Your task to perform on an android device: find photos in the google photos app Image 0: 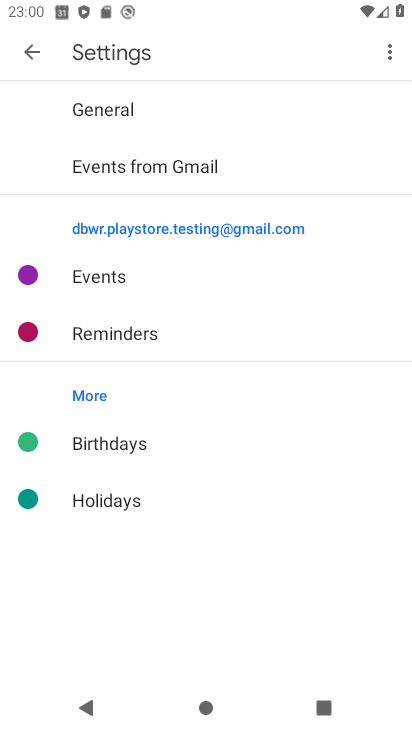
Step 0: press back button
Your task to perform on an android device: find photos in the google photos app Image 1: 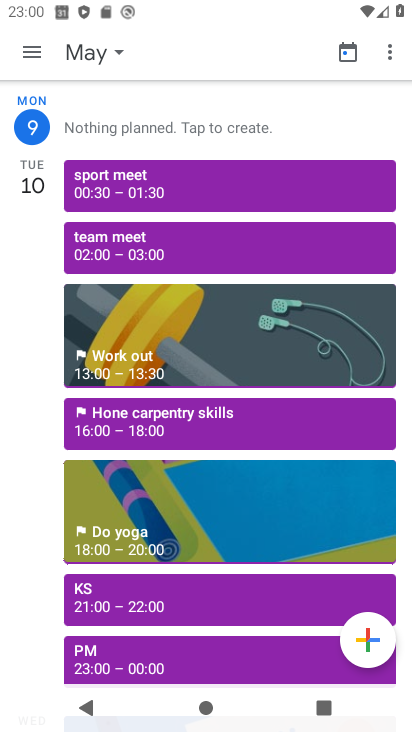
Step 1: press back button
Your task to perform on an android device: find photos in the google photos app Image 2: 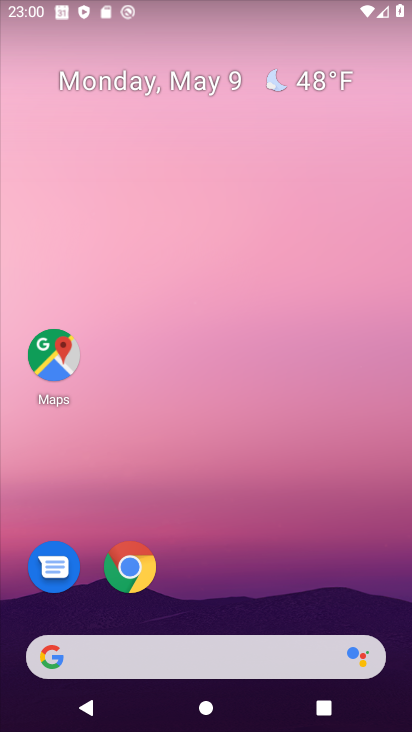
Step 2: drag from (265, 571) to (174, 71)
Your task to perform on an android device: find photos in the google photos app Image 3: 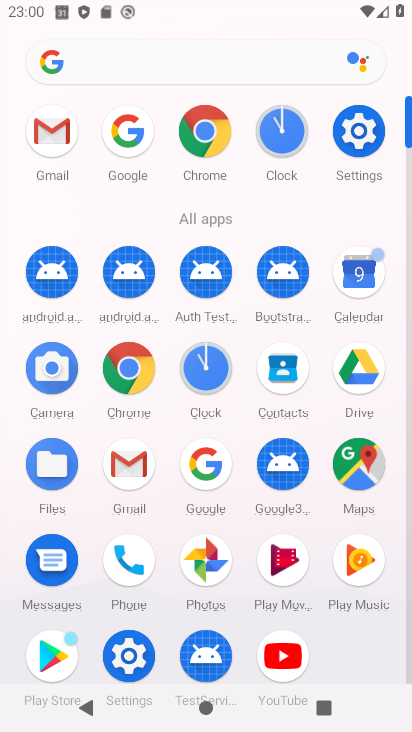
Step 3: click (207, 557)
Your task to perform on an android device: find photos in the google photos app Image 4: 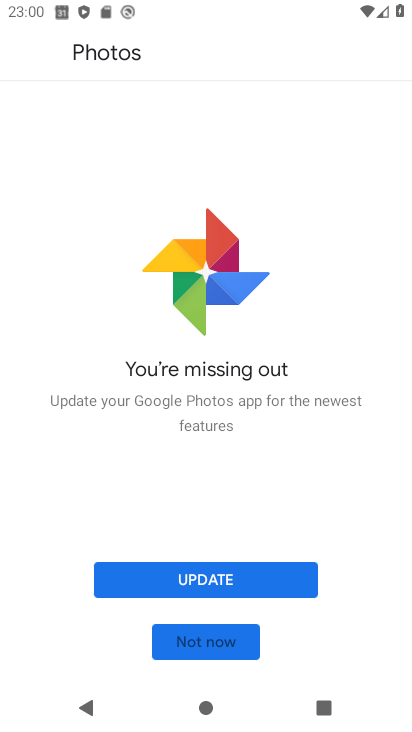
Step 4: click (198, 578)
Your task to perform on an android device: find photos in the google photos app Image 5: 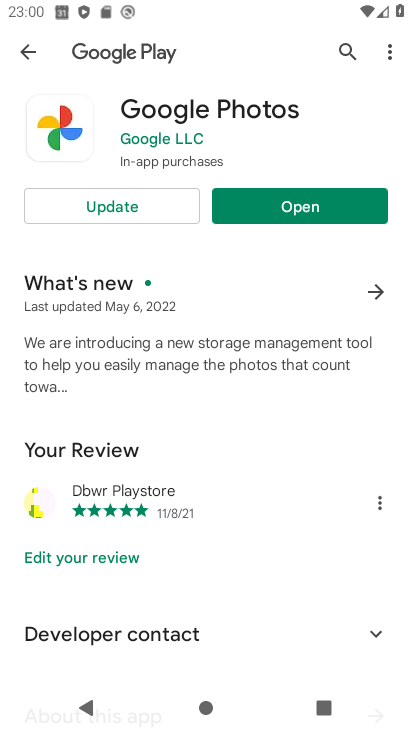
Step 5: click (115, 203)
Your task to perform on an android device: find photos in the google photos app Image 6: 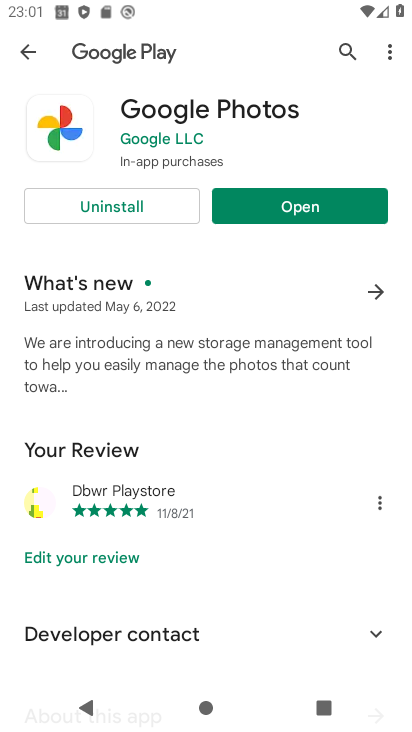
Step 6: click (275, 203)
Your task to perform on an android device: find photos in the google photos app Image 7: 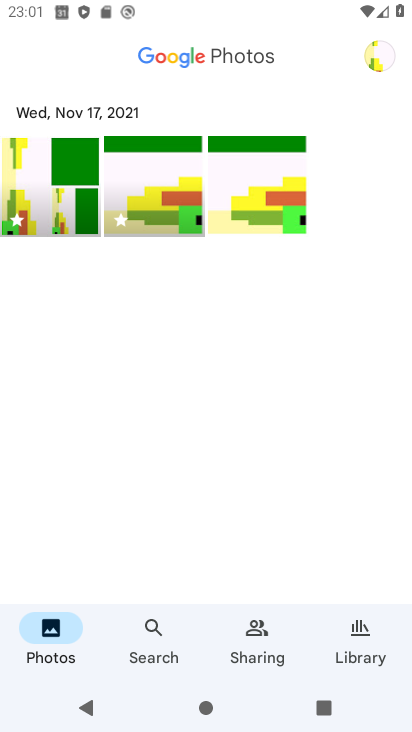
Step 7: click (149, 636)
Your task to perform on an android device: find photos in the google photos app Image 8: 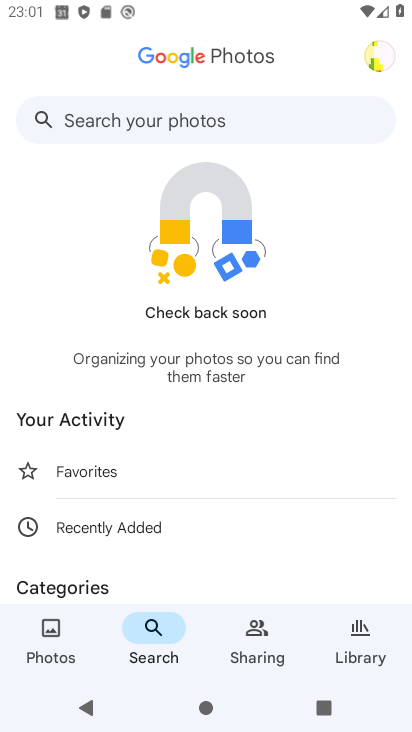
Step 8: click (102, 484)
Your task to perform on an android device: find photos in the google photos app Image 9: 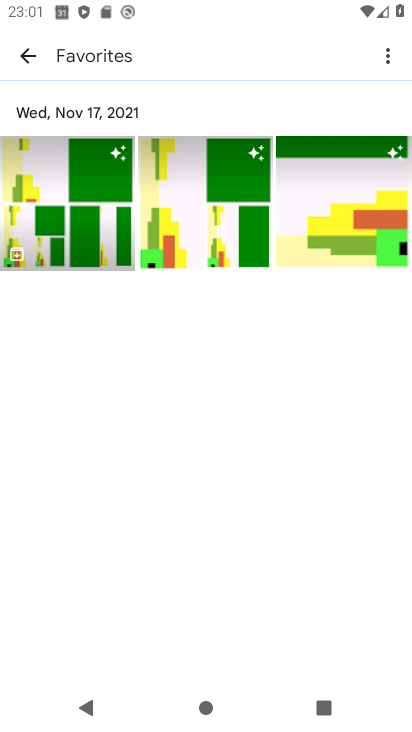
Step 9: click (89, 220)
Your task to perform on an android device: find photos in the google photos app Image 10: 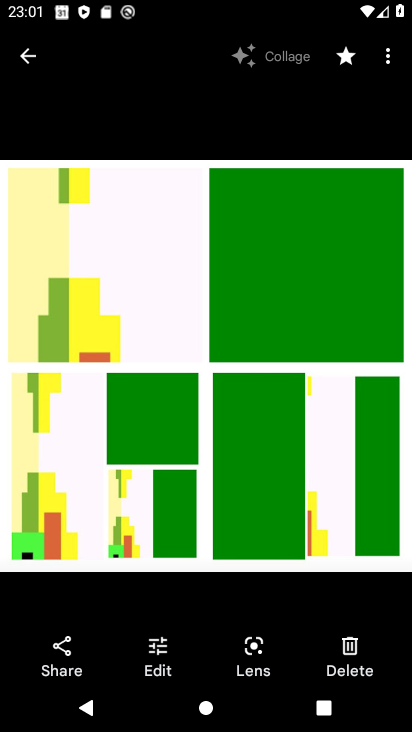
Step 10: task complete